Your task to perform on an android device: change alarm snooze length Image 0: 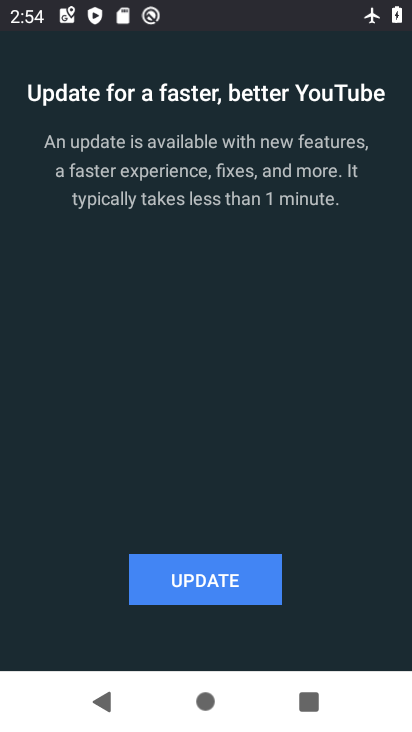
Step 0: press home button
Your task to perform on an android device: change alarm snooze length Image 1: 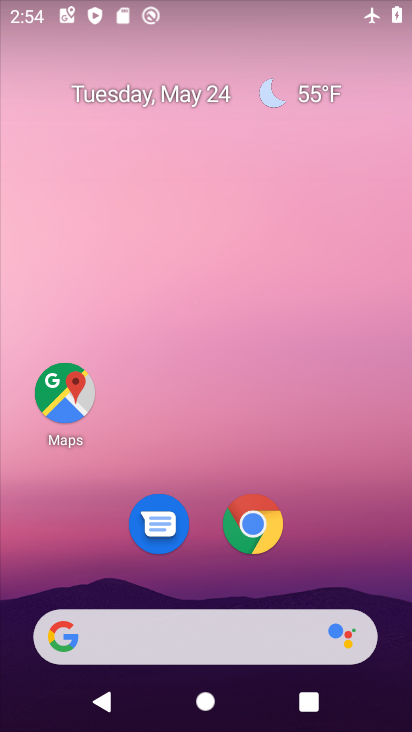
Step 1: drag from (298, 480) to (289, 35)
Your task to perform on an android device: change alarm snooze length Image 2: 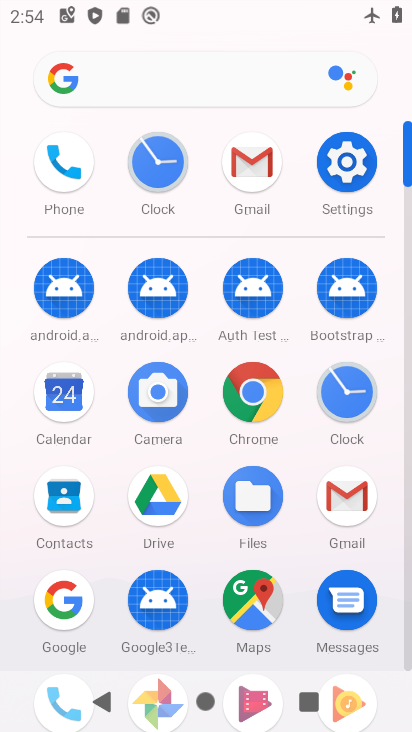
Step 2: click (352, 388)
Your task to perform on an android device: change alarm snooze length Image 3: 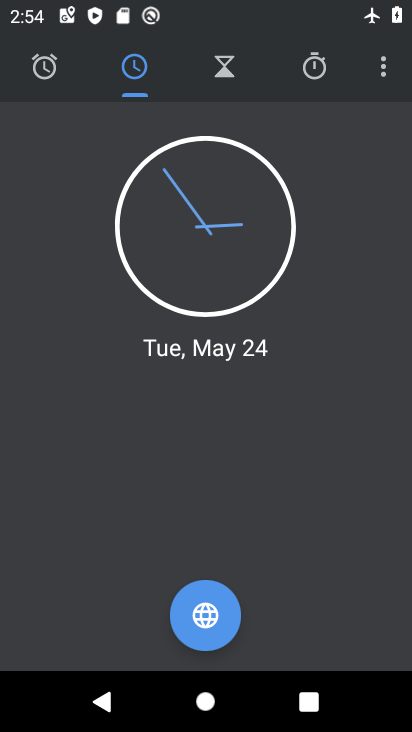
Step 3: click (378, 67)
Your task to perform on an android device: change alarm snooze length Image 4: 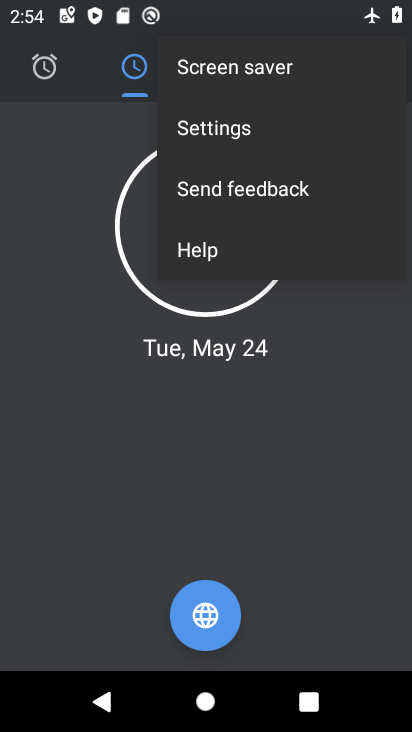
Step 4: click (287, 144)
Your task to perform on an android device: change alarm snooze length Image 5: 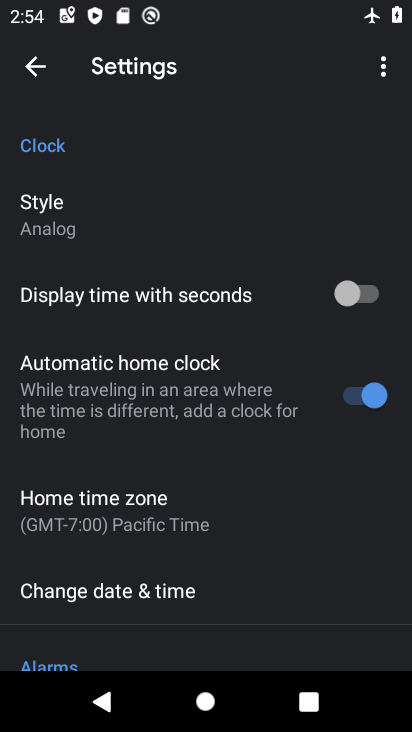
Step 5: drag from (245, 505) to (255, 140)
Your task to perform on an android device: change alarm snooze length Image 6: 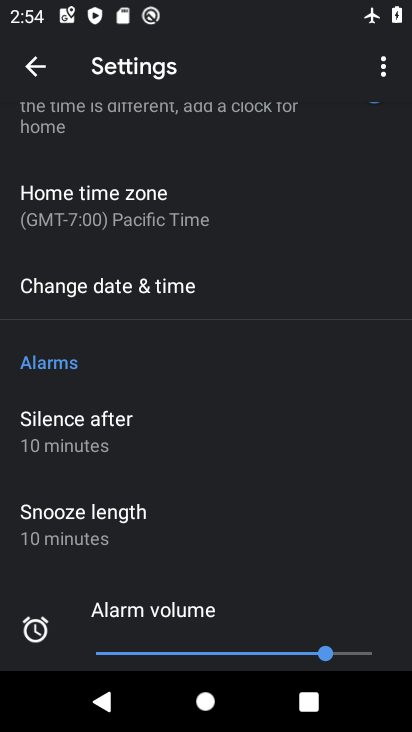
Step 6: click (167, 510)
Your task to perform on an android device: change alarm snooze length Image 7: 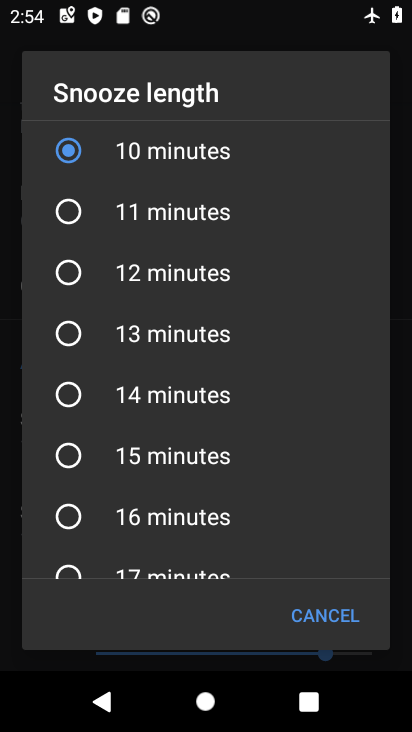
Step 7: click (76, 266)
Your task to perform on an android device: change alarm snooze length Image 8: 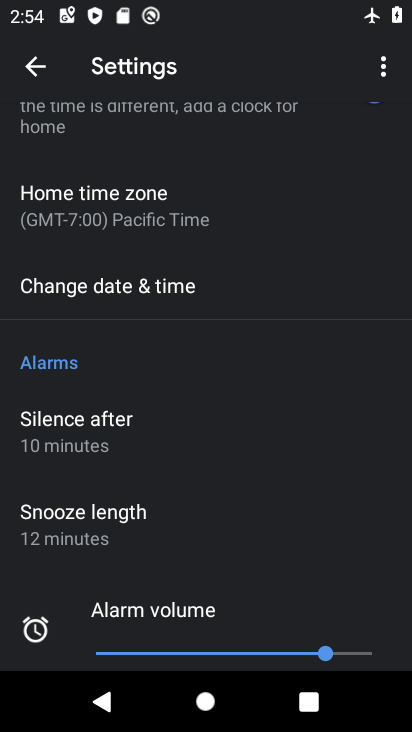
Step 8: task complete